Your task to perform on an android device: Go to CNN.com Image 0: 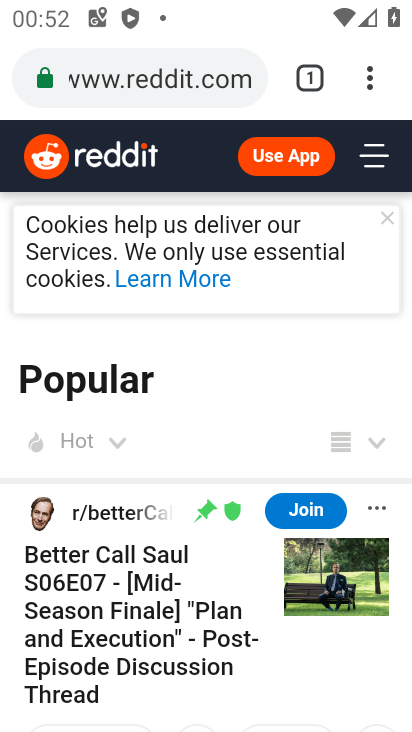
Step 0: click (308, 67)
Your task to perform on an android device: Go to CNN.com Image 1: 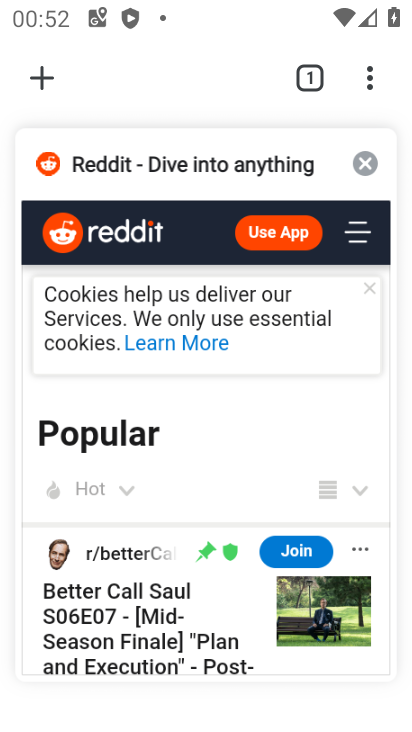
Step 1: click (37, 61)
Your task to perform on an android device: Go to CNN.com Image 2: 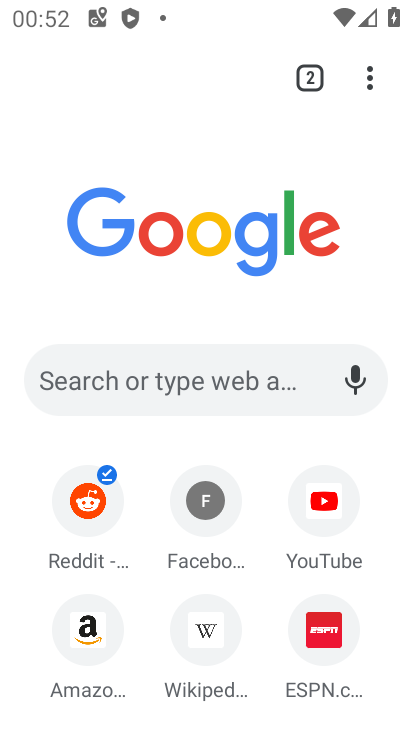
Step 2: click (216, 372)
Your task to perform on an android device: Go to CNN.com Image 3: 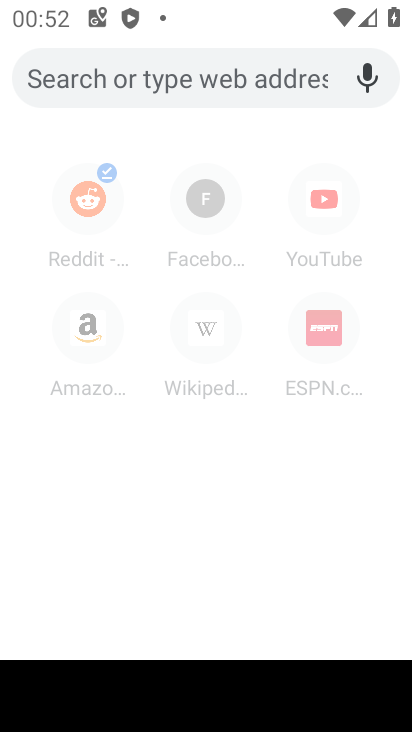
Step 3: type "CNN.com"
Your task to perform on an android device: Go to CNN.com Image 4: 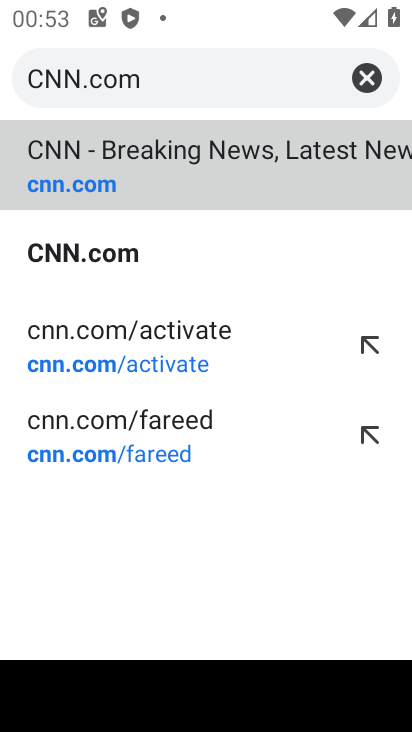
Step 4: click (302, 160)
Your task to perform on an android device: Go to CNN.com Image 5: 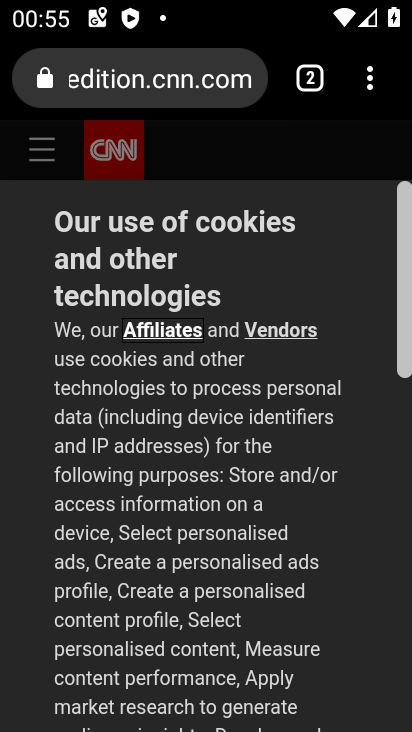
Step 5: task complete